Your task to perform on an android device: Set the phone to "Do not disturb". Image 0: 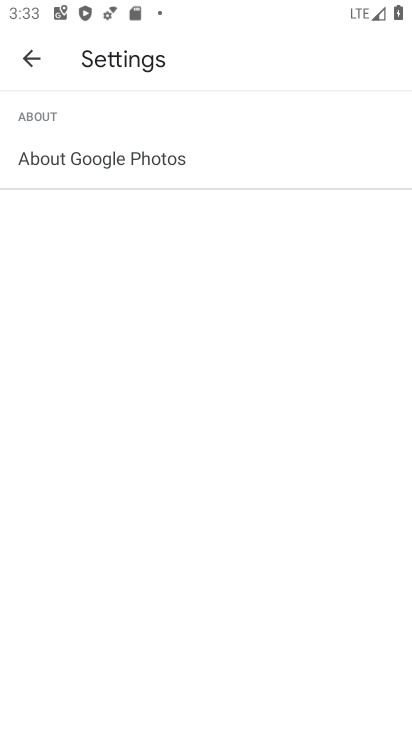
Step 0: drag from (293, 3) to (250, 629)
Your task to perform on an android device: Set the phone to "Do not disturb". Image 1: 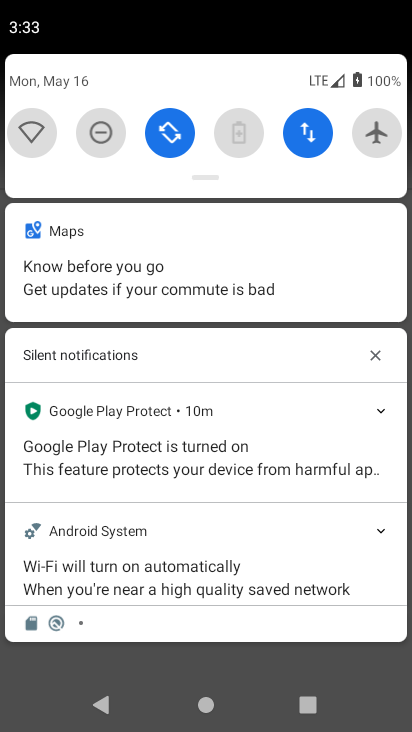
Step 1: click (98, 134)
Your task to perform on an android device: Set the phone to "Do not disturb". Image 2: 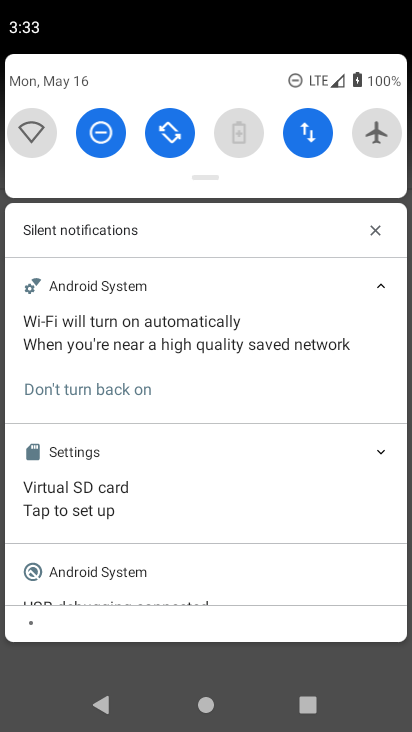
Step 2: task complete